Your task to perform on an android device: Go to Google Image 0: 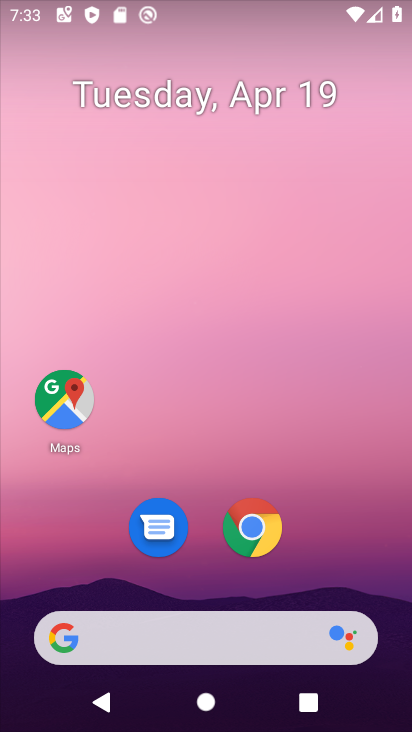
Step 0: drag from (361, 556) to (268, 146)
Your task to perform on an android device: Go to Google Image 1: 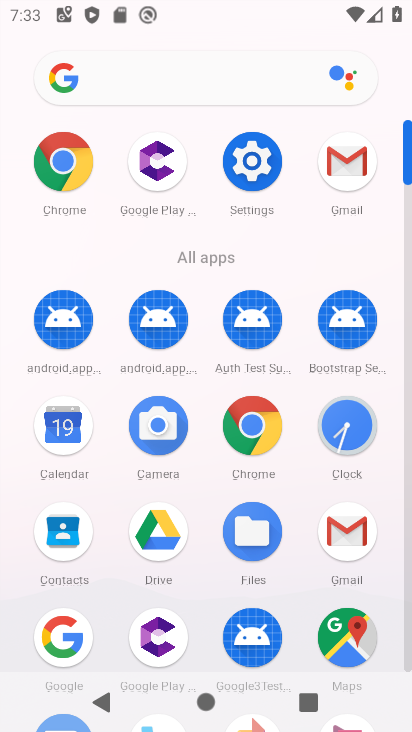
Step 1: click (59, 642)
Your task to perform on an android device: Go to Google Image 2: 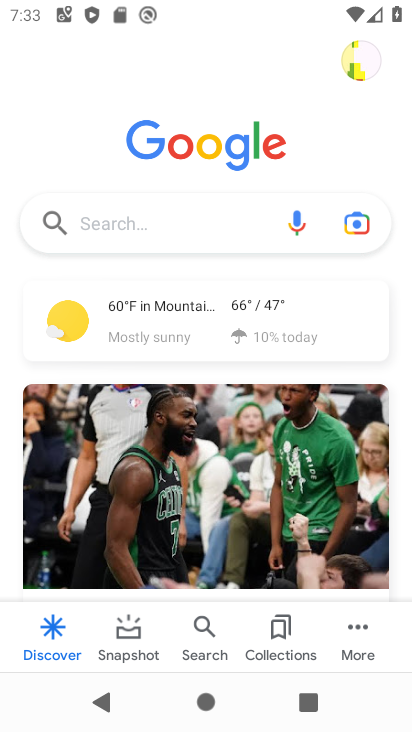
Step 2: task complete